Your task to perform on an android device: check google app version Image 0: 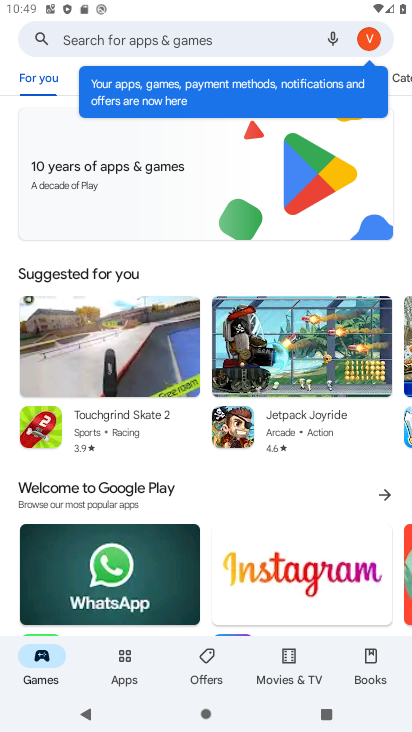
Step 0: press home button
Your task to perform on an android device: check google app version Image 1: 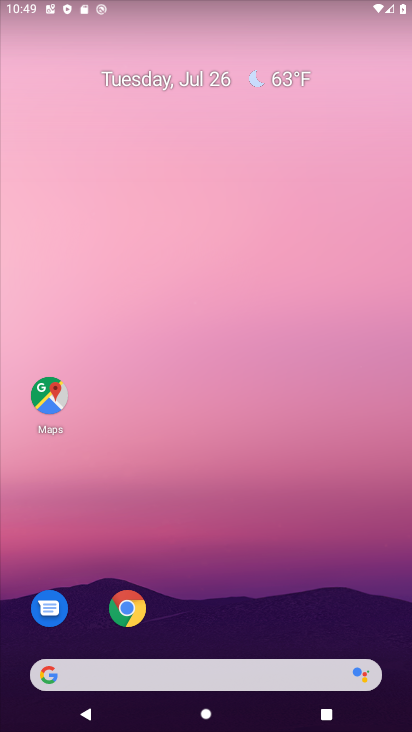
Step 1: drag from (314, 602) to (357, 0)
Your task to perform on an android device: check google app version Image 2: 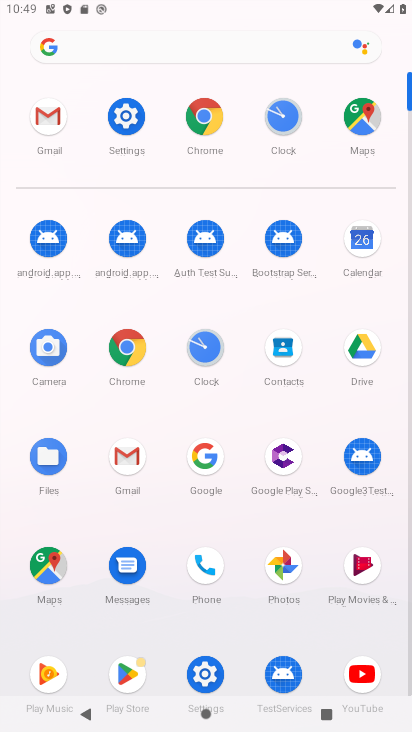
Step 2: click (209, 449)
Your task to perform on an android device: check google app version Image 3: 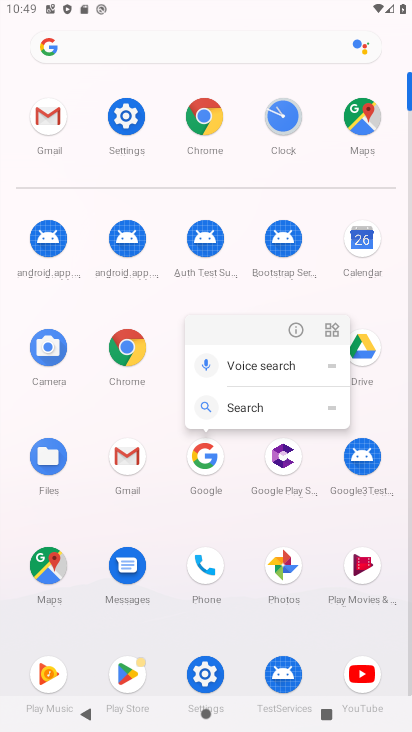
Step 3: click (292, 328)
Your task to perform on an android device: check google app version Image 4: 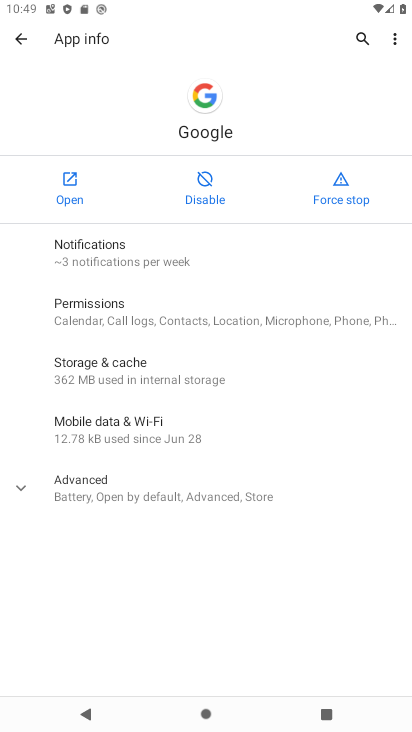
Step 4: click (19, 490)
Your task to perform on an android device: check google app version Image 5: 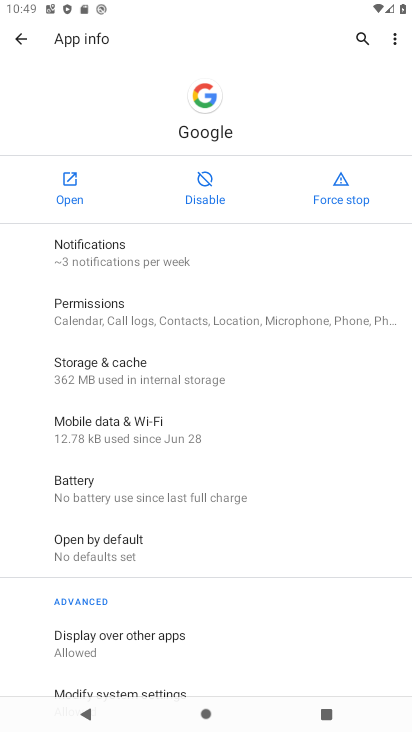
Step 5: task complete